Your task to perform on an android device: What's the weather? Image 0: 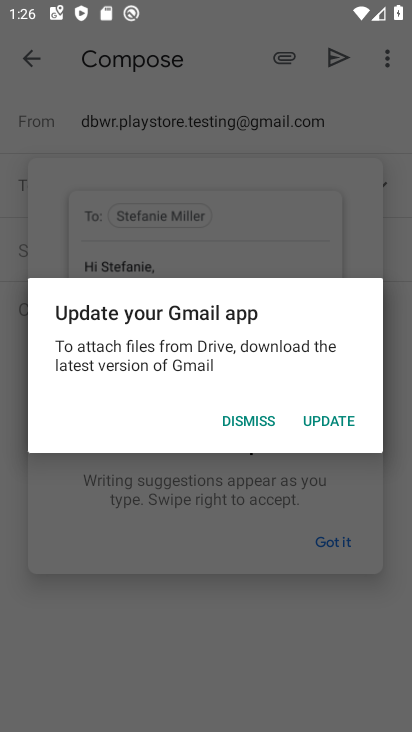
Step 0: press home button
Your task to perform on an android device: What's the weather? Image 1: 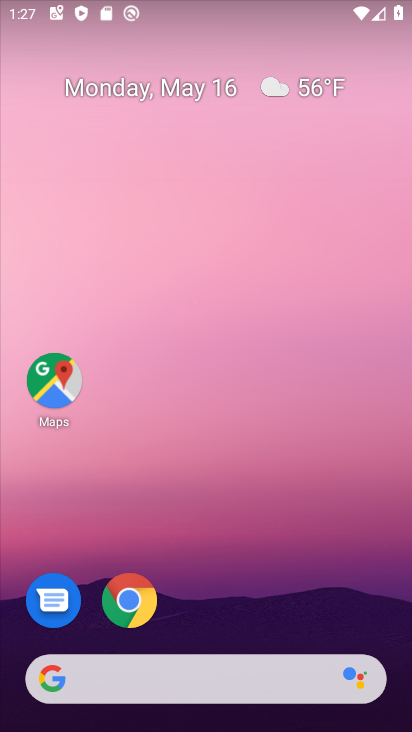
Step 1: click (310, 90)
Your task to perform on an android device: What's the weather? Image 2: 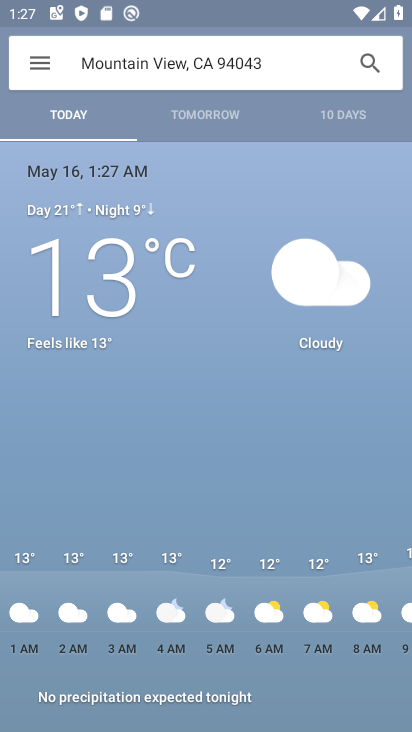
Step 2: task complete